Your task to perform on an android device: change the clock display to digital Image 0: 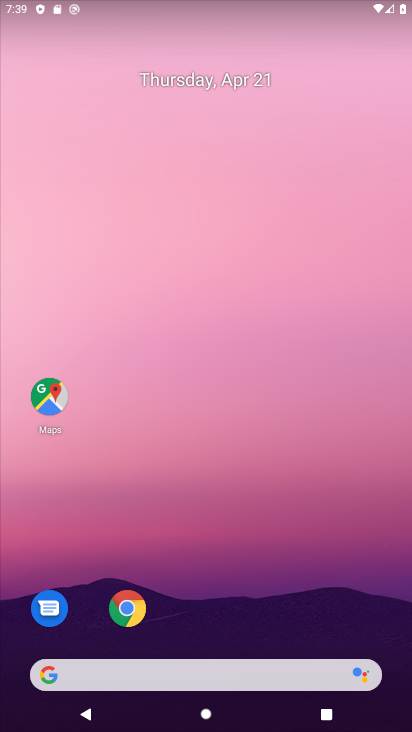
Step 0: drag from (139, 283) to (80, 0)
Your task to perform on an android device: change the clock display to digital Image 1: 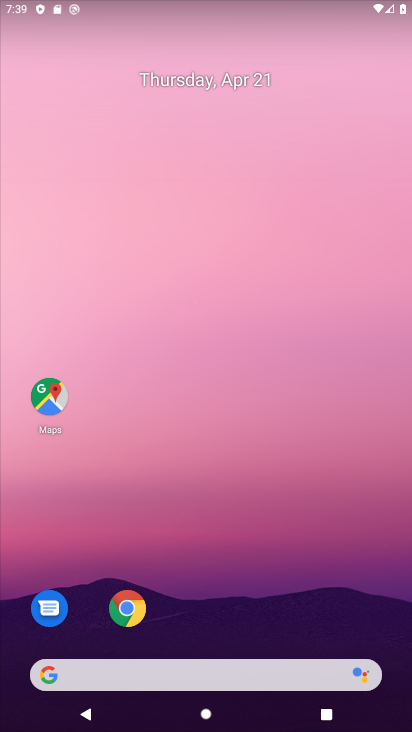
Step 1: drag from (215, 567) to (127, 0)
Your task to perform on an android device: change the clock display to digital Image 2: 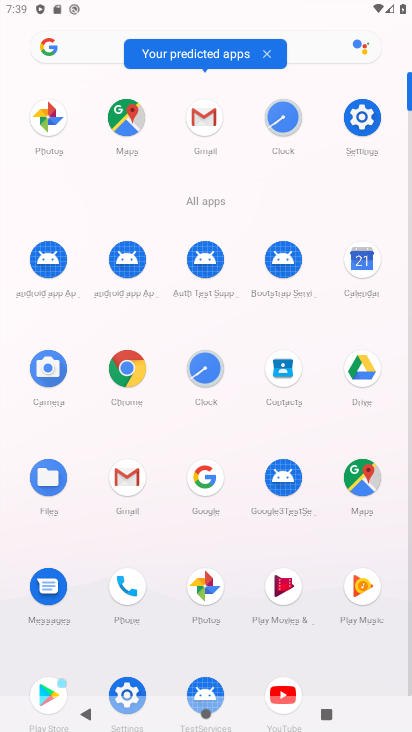
Step 2: click (198, 378)
Your task to perform on an android device: change the clock display to digital Image 3: 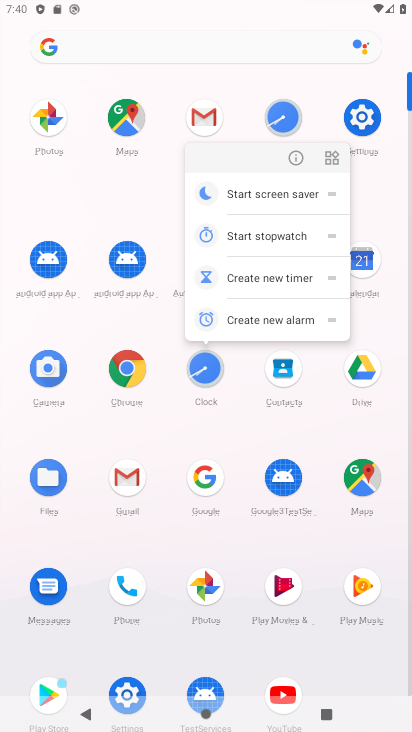
Step 3: click (200, 361)
Your task to perform on an android device: change the clock display to digital Image 4: 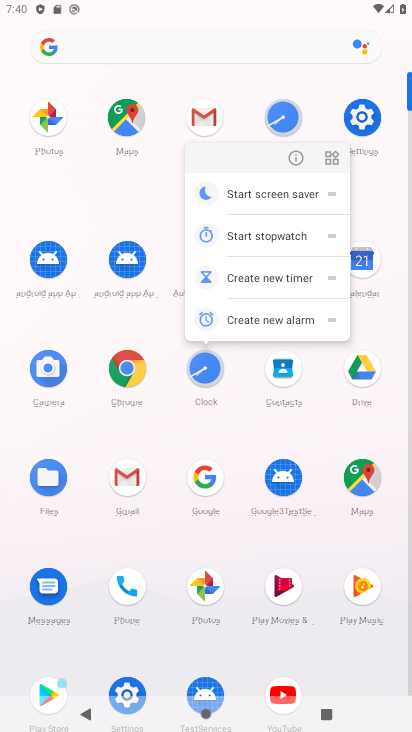
Step 4: click (200, 361)
Your task to perform on an android device: change the clock display to digital Image 5: 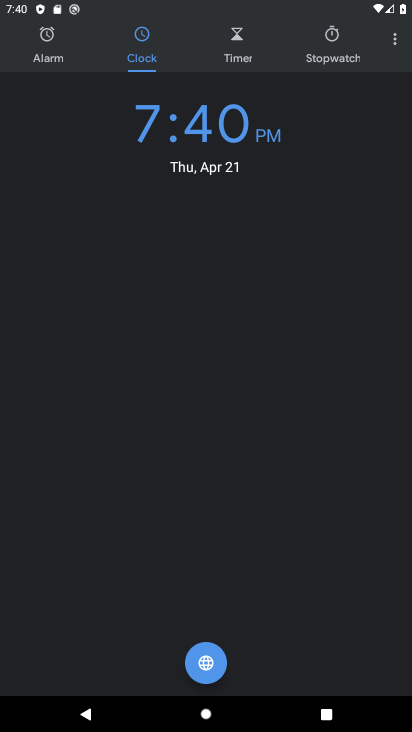
Step 5: click (392, 43)
Your task to perform on an android device: change the clock display to digital Image 6: 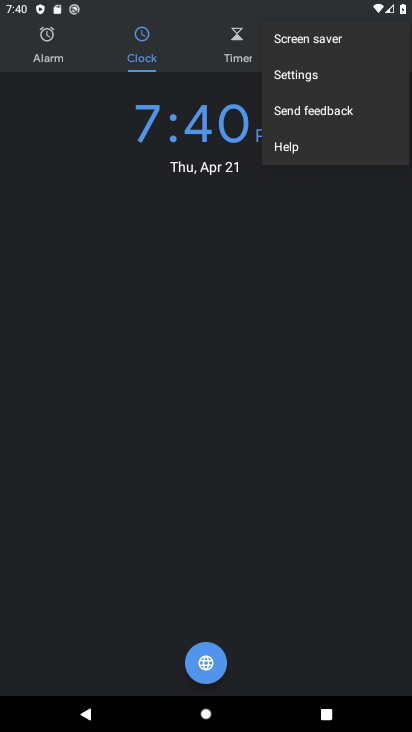
Step 6: click (289, 75)
Your task to perform on an android device: change the clock display to digital Image 7: 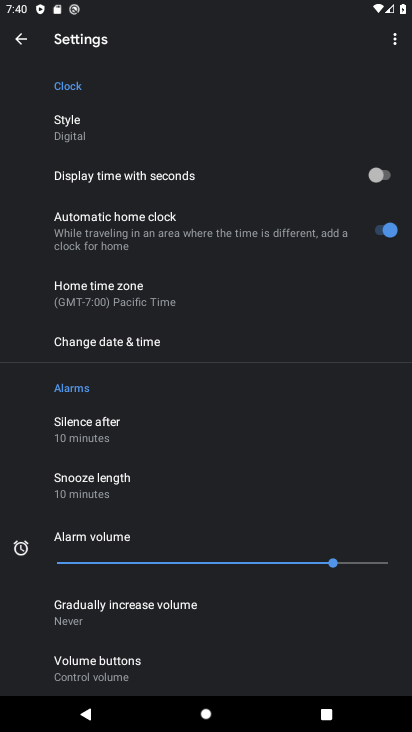
Step 7: click (180, 128)
Your task to perform on an android device: change the clock display to digital Image 8: 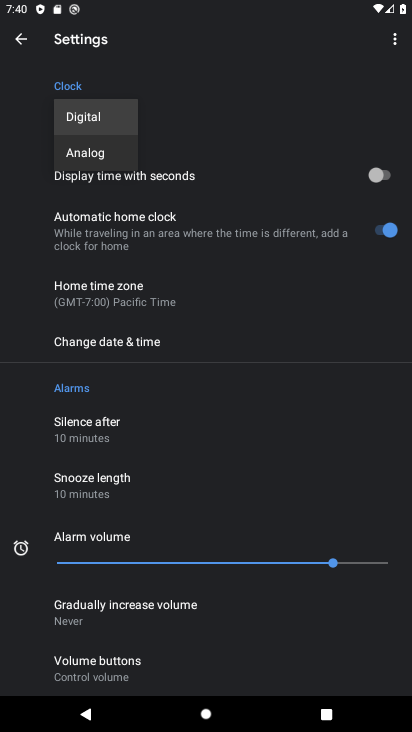
Step 8: task complete